Your task to perform on an android device: Go to ESPN.com Image 0: 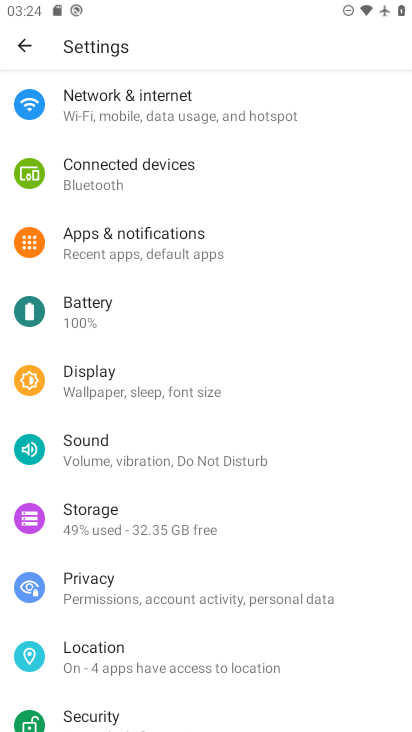
Step 0: press home button
Your task to perform on an android device: Go to ESPN.com Image 1: 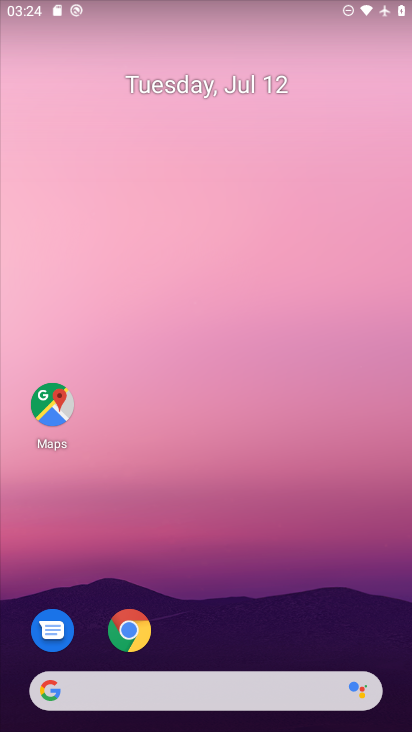
Step 1: click (132, 631)
Your task to perform on an android device: Go to ESPN.com Image 2: 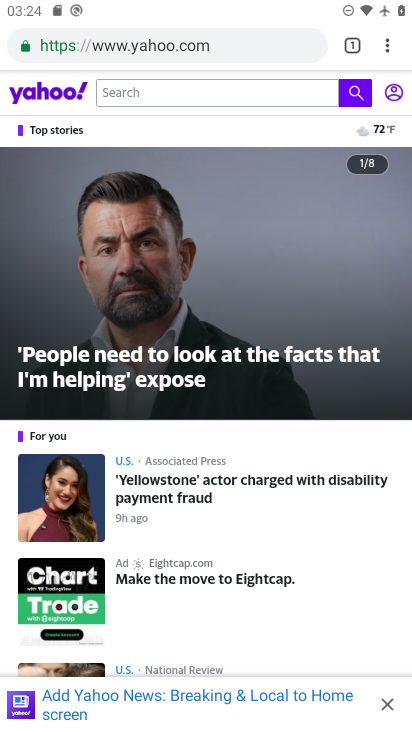
Step 2: click (257, 42)
Your task to perform on an android device: Go to ESPN.com Image 3: 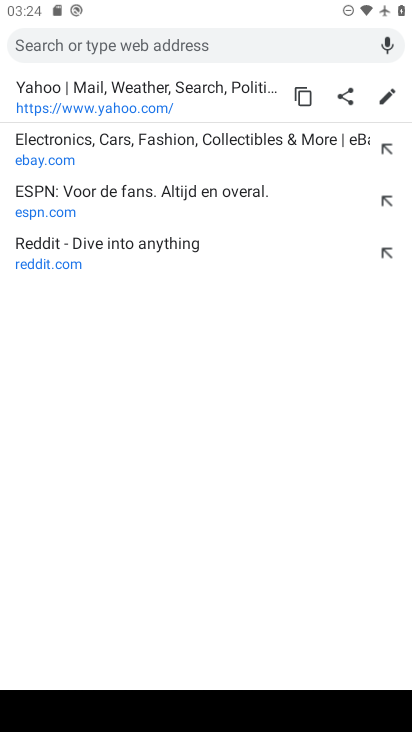
Step 3: type "espn.com"
Your task to perform on an android device: Go to ESPN.com Image 4: 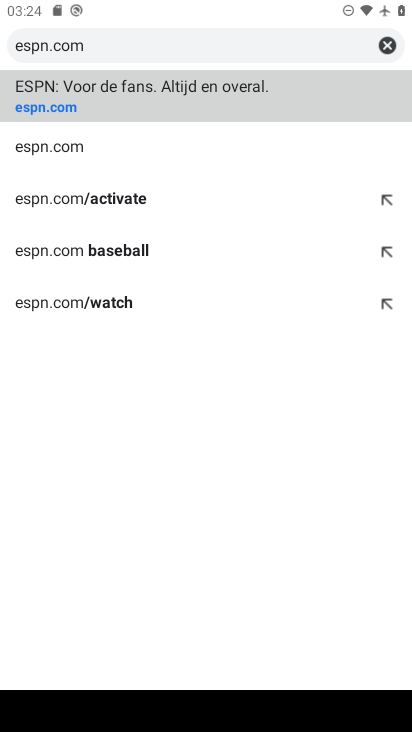
Step 4: click (69, 90)
Your task to perform on an android device: Go to ESPN.com Image 5: 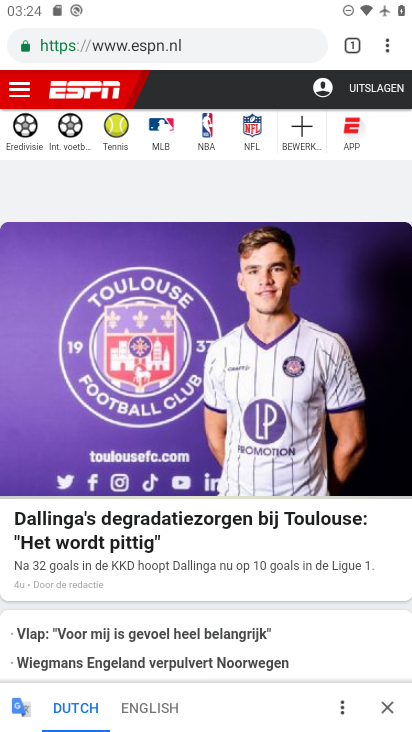
Step 5: task complete